Your task to perform on an android device: open the mobile data screen to see how much data has been used Image 0: 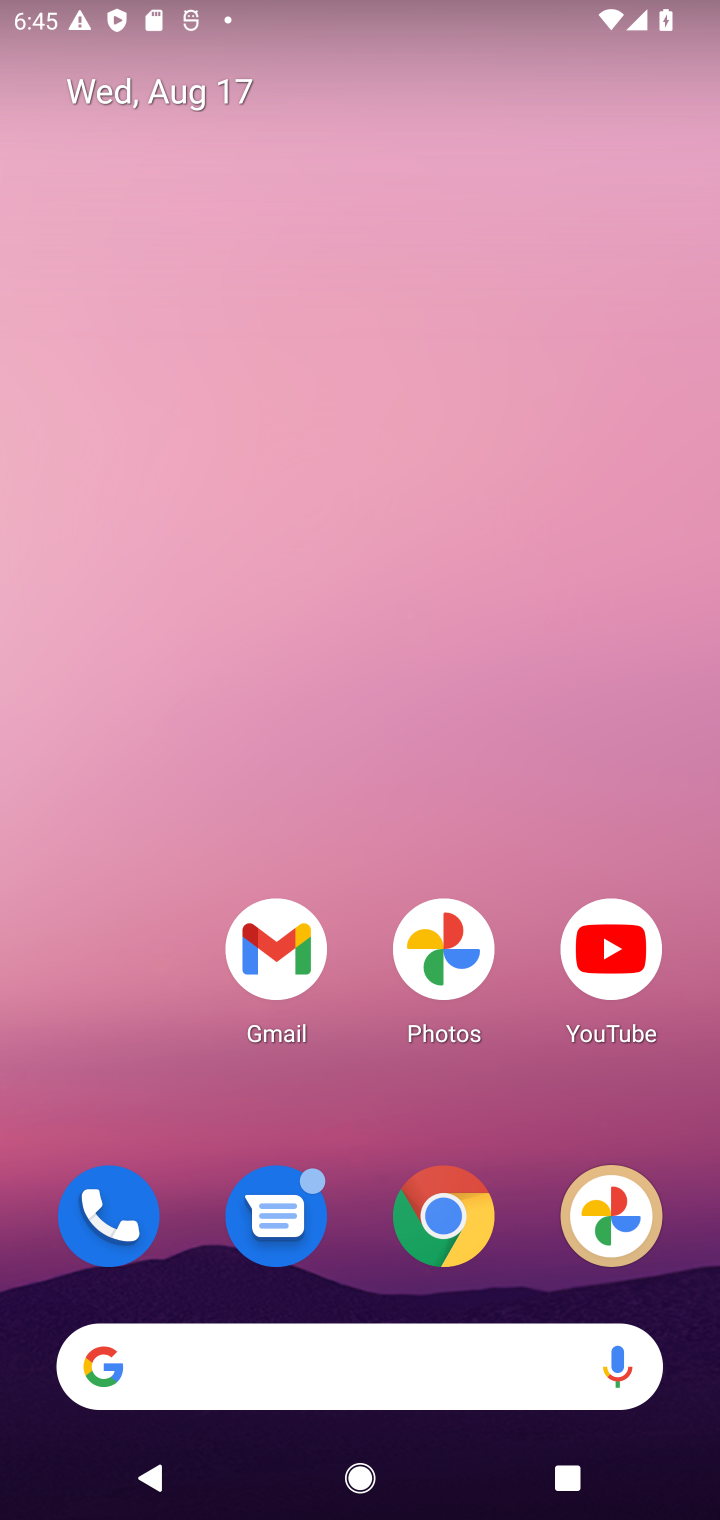
Step 0: drag from (411, 880) to (434, 296)
Your task to perform on an android device: open the mobile data screen to see how much data has been used Image 1: 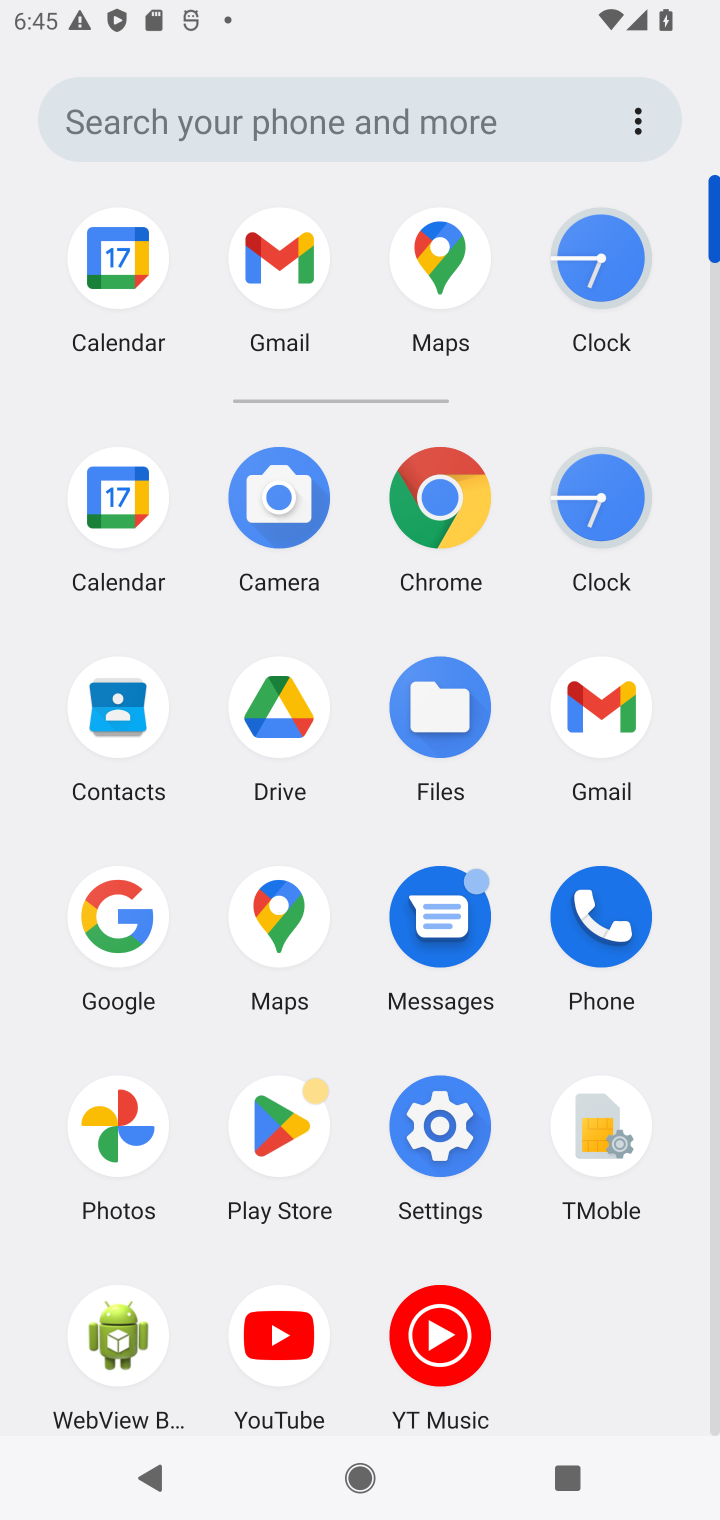
Step 1: drag from (372, 18) to (398, 1330)
Your task to perform on an android device: open the mobile data screen to see how much data has been used Image 2: 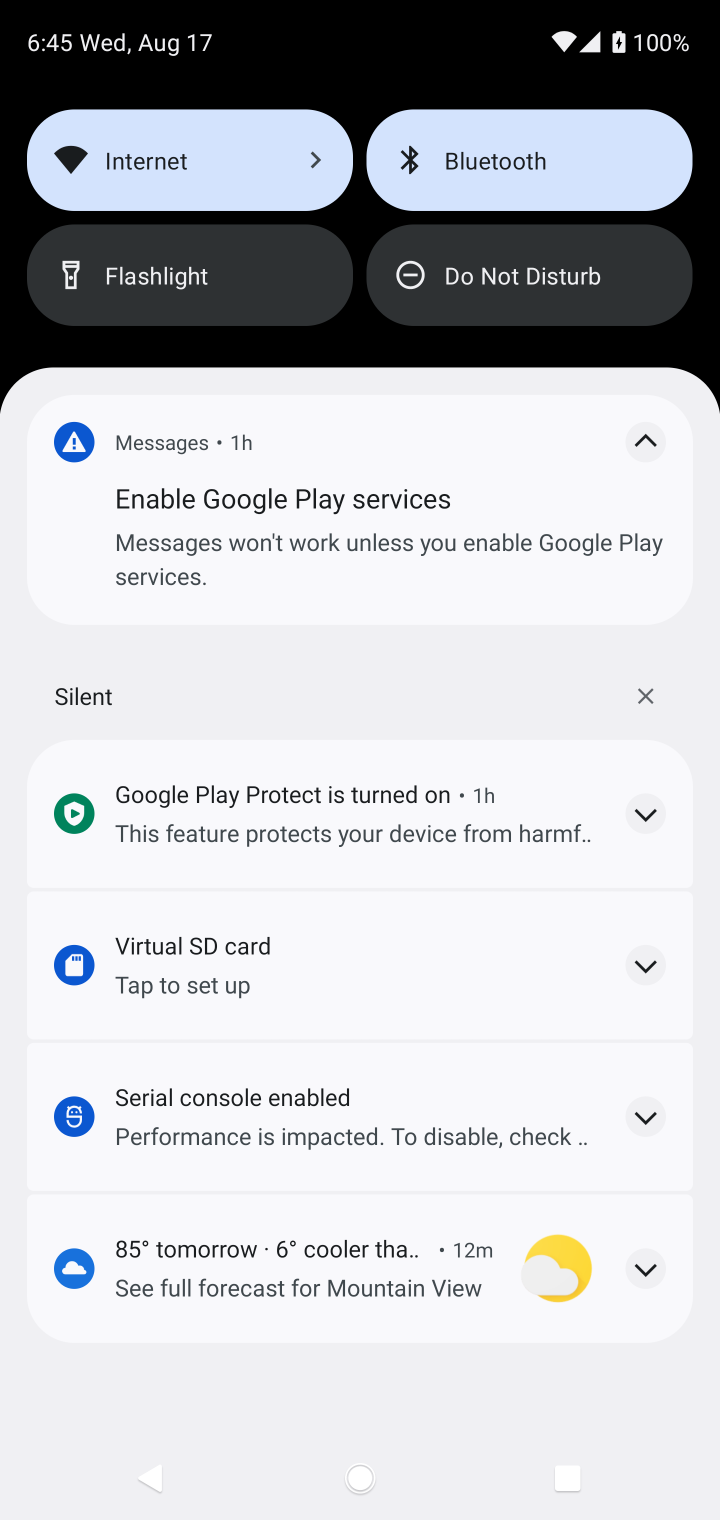
Step 2: click (217, 172)
Your task to perform on an android device: open the mobile data screen to see how much data has been used Image 3: 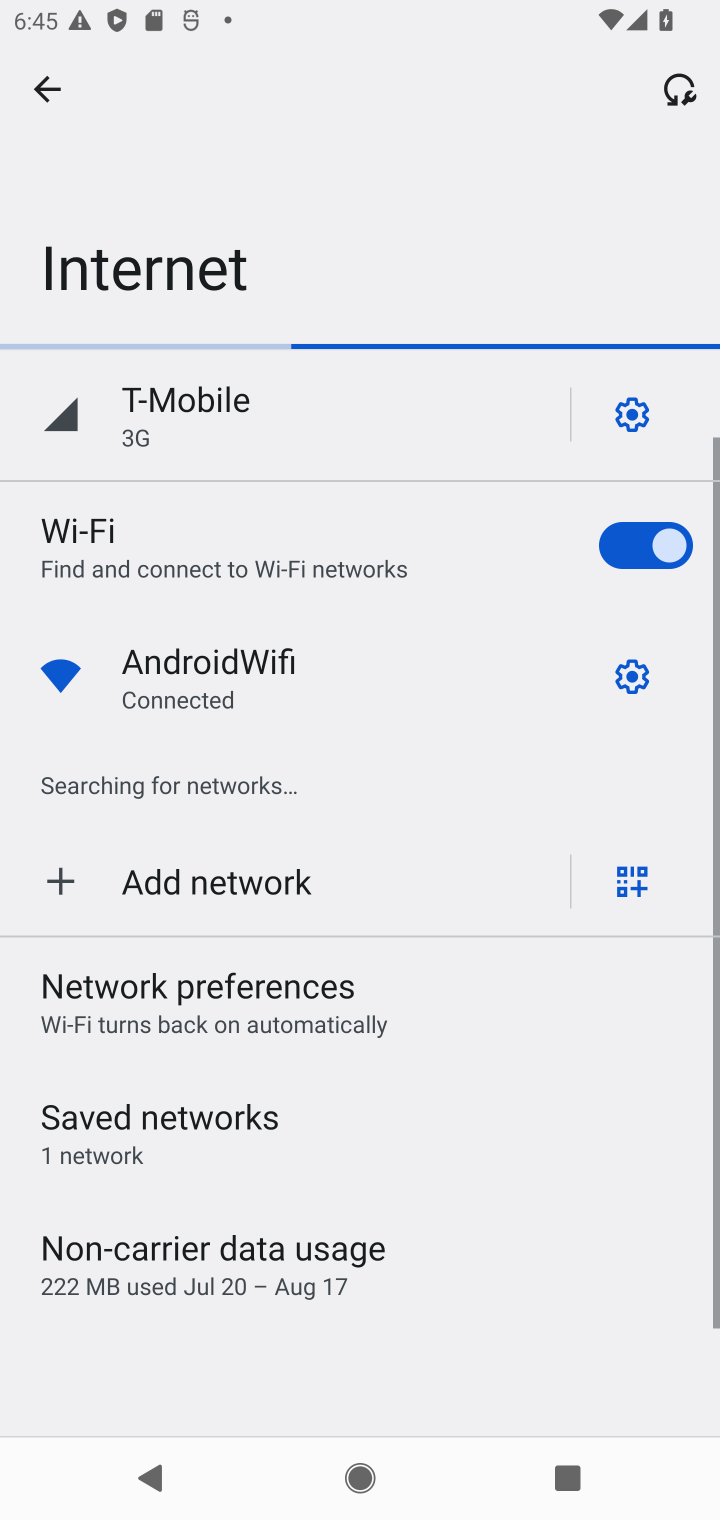
Step 3: task complete